Your task to perform on an android device: Do I have any events tomorrow? Image 0: 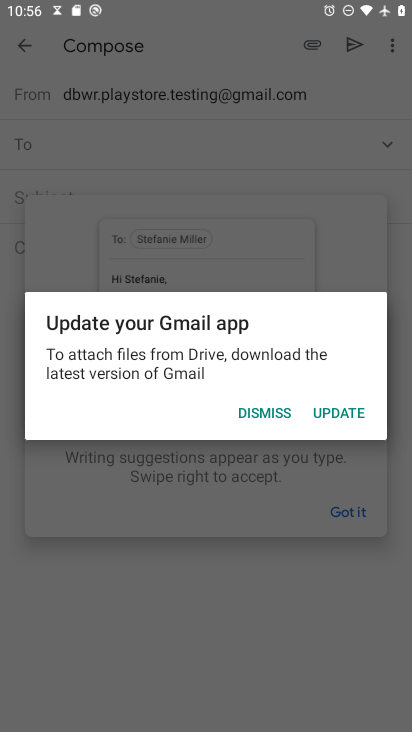
Step 0: press home button
Your task to perform on an android device: Do I have any events tomorrow? Image 1: 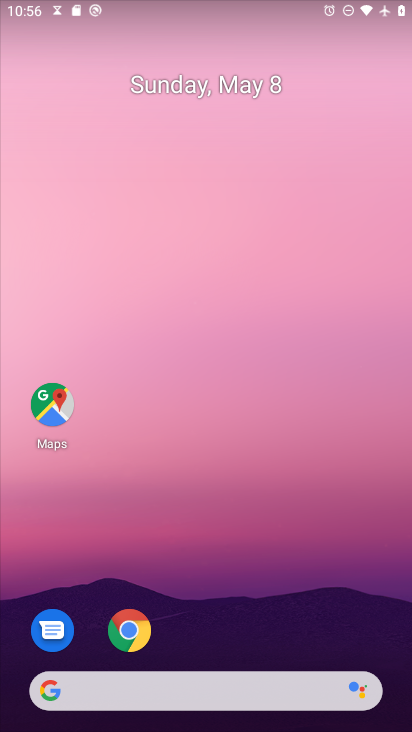
Step 1: drag from (111, 666) to (338, 8)
Your task to perform on an android device: Do I have any events tomorrow? Image 2: 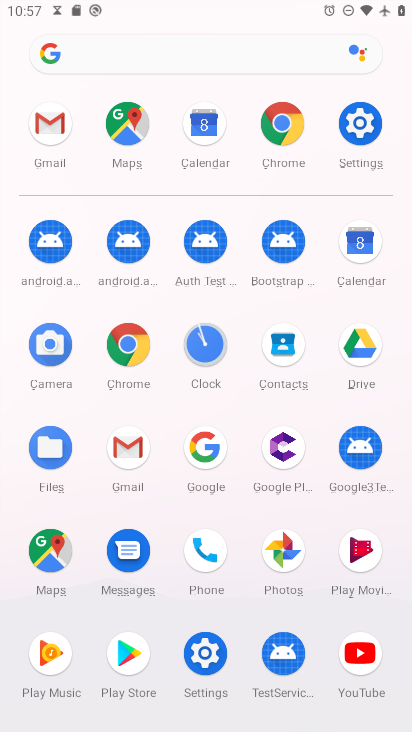
Step 2: click (204, 133)
Your task to perform on an android device: Do I have any events tomorrow? Image 3: 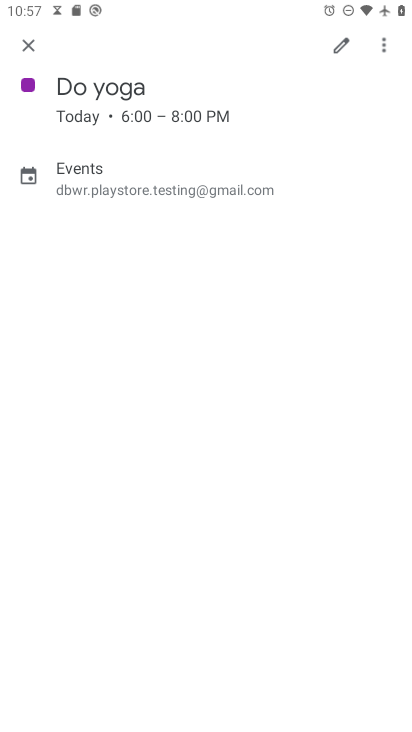
Step 3: click (29, 49)
Your task to perform on an android device: Do I have any events tomorrow? Image 4: 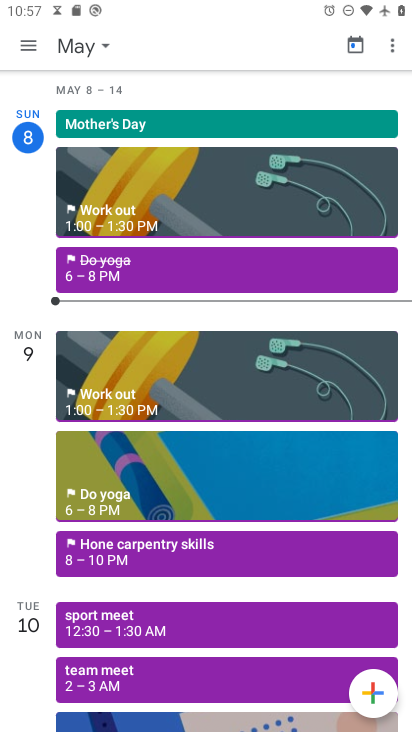
Step 4: click (82, 46)
Your task to perform on an android device: Do I have any events tomorrow? Image 5: 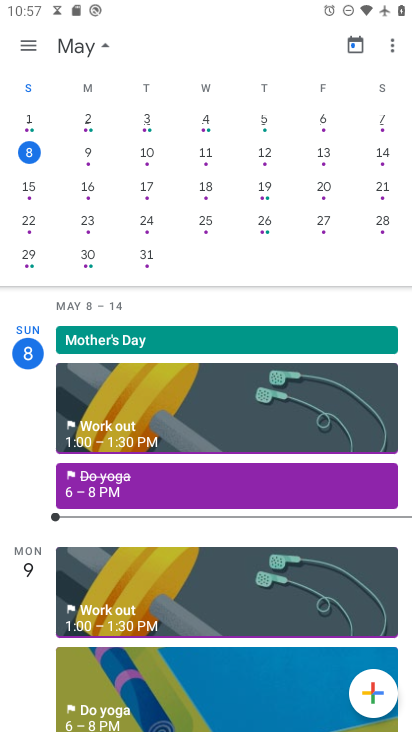
Step 5: click (89, 152)
Your task to perform on an android device: Do I have any events tomorrow? Image 6: 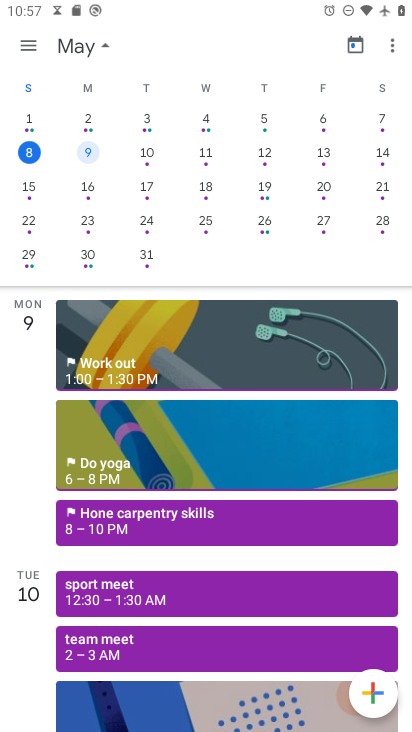
Step 6: click (34, 45)
Your task to perform on an android device: Do I have any events tomorrow? Image 7: 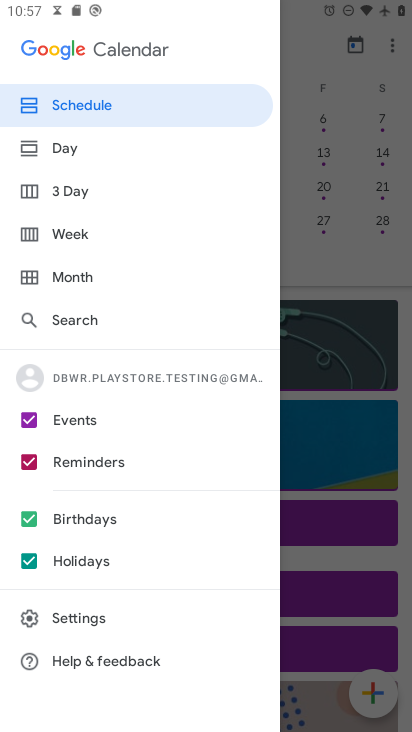
Step 7: click (77, 152)
Your task to perform on an android device: Do I have any events tomorrow? Image 8: 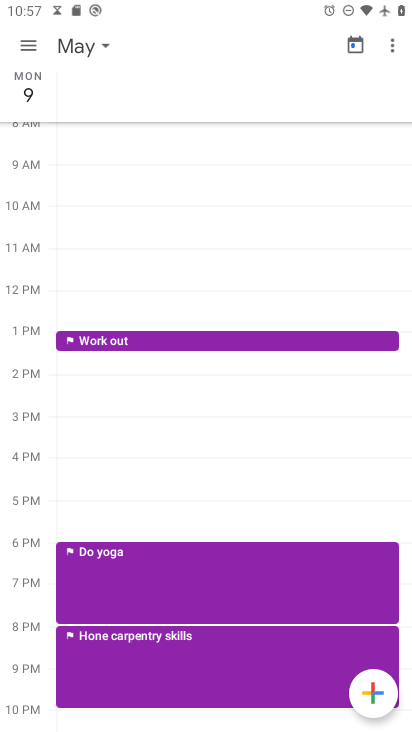
Step 8: click (35, 42)
Your task to perform on an android device: Do I have any events tomorrow? Image 9: 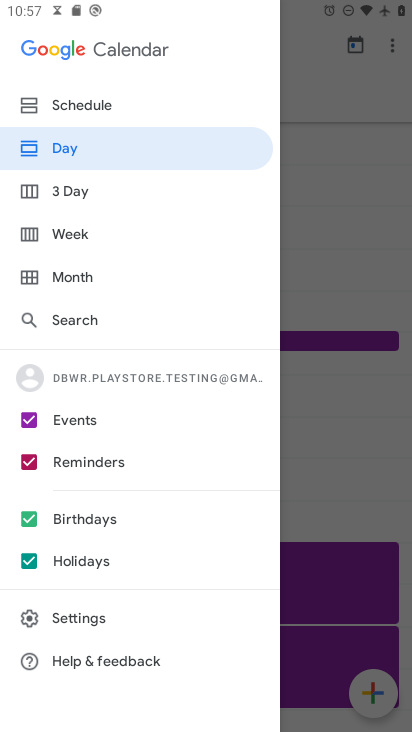
Step 9: click (68, 100)
Your task to perform on an android device: Do I have any events tomorrow? Image 10: 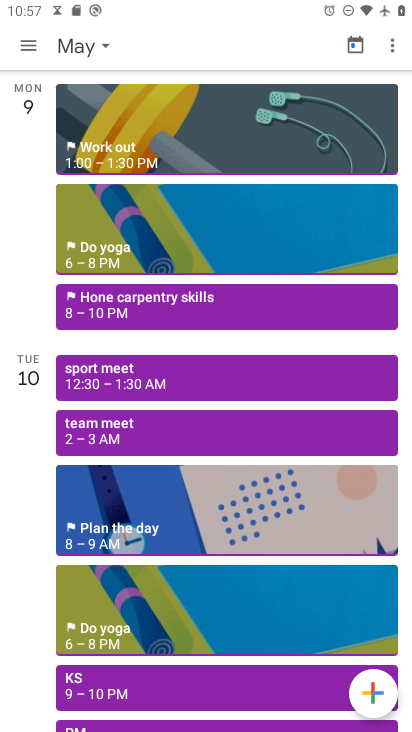
Step 10: click (125, 301)
Your task to perform on an android device: Do I have any events tomorrow? Image 11: 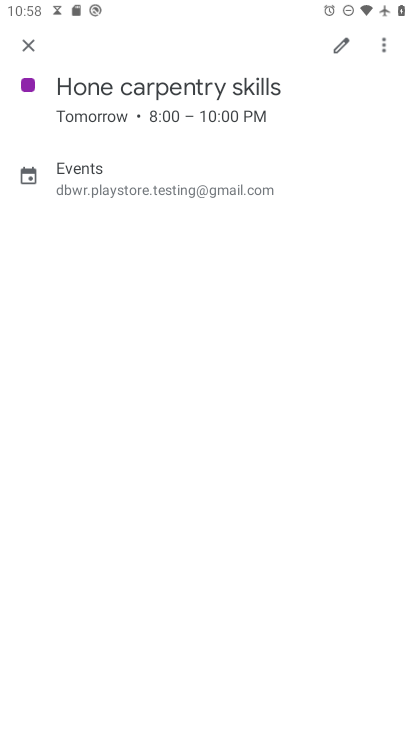
Step 11: task complete